Your task to perform on an android device: toggle javascript in the chrome app Image 0: 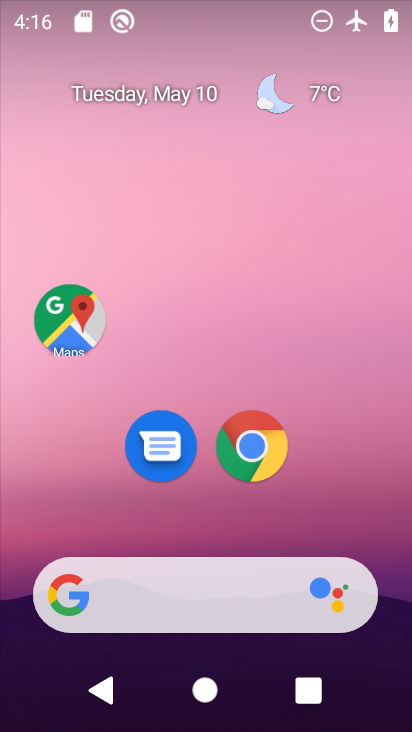
Step 0: drag from (301, 504) to (240, 98)
Your task to perform on an android device: toggle javascript in the chrome app Image 1: 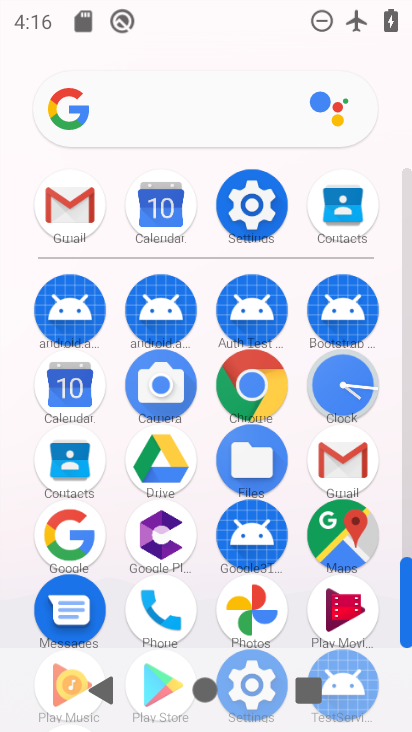
Step 1: click (257, 383)
Your task to perform on an android device: toggle javascript in the chrome app Image 2: 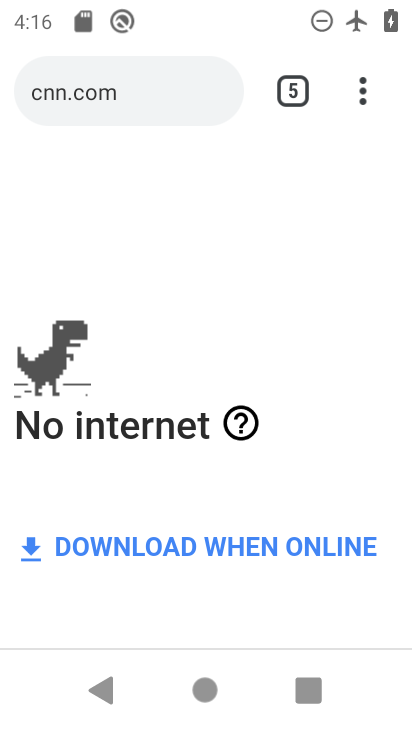
Step 2: click (358, 93)
Your task to perform on an android device: toggle javascript in the chrome app Image 3: 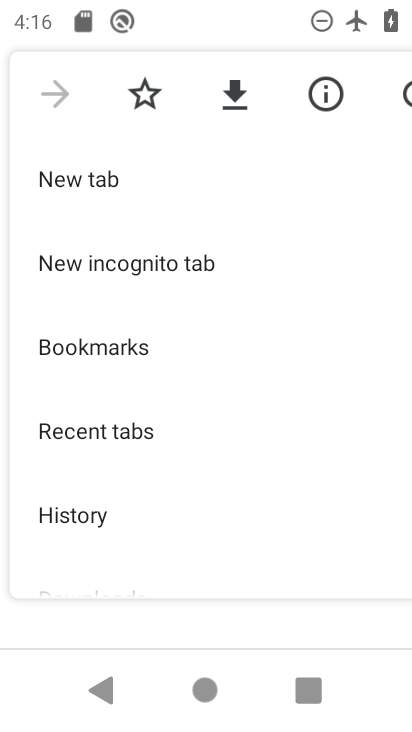
Step 3: drag from (170, 558) to (142, 207)
Your task to perform on an android device: toggle javascript in the chrome app Image 4: 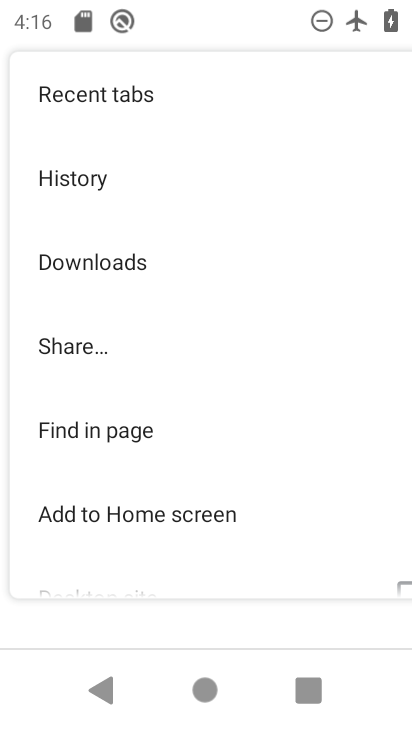
Step 4: drag from (197, 551) to (171, 259)
Your task to perform on an android device: toggle javascript in the chrome app Image 5: 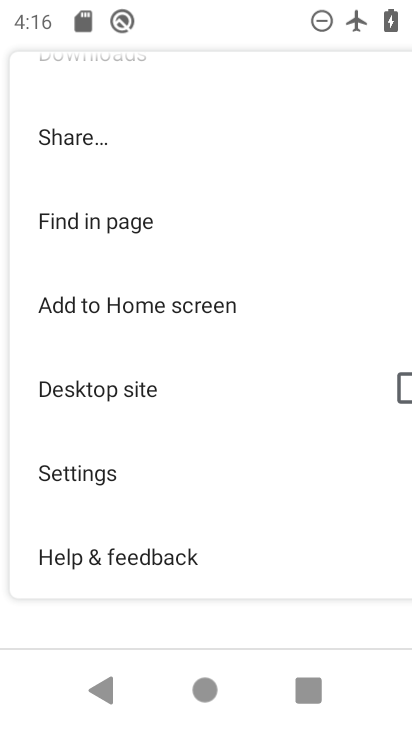
Step 5: click (136, 469)
Your task to perform on an android device: toggle javascript in the chrome app Image 6: 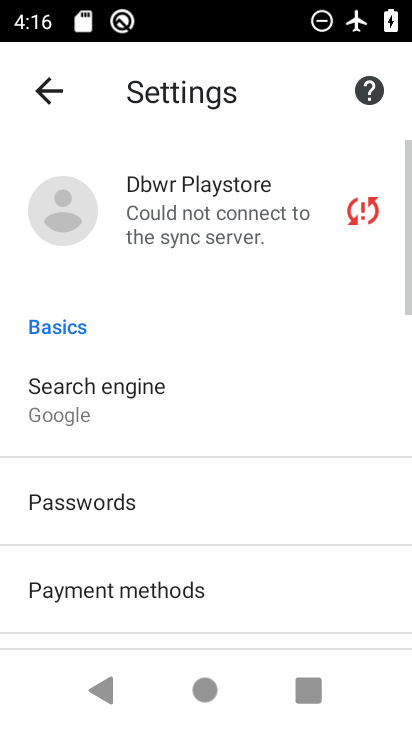
Step 6: drag from (216, 572) to (211, 248)
Your task to perform on an android device: toggle javascript in the chrome app Image 7: 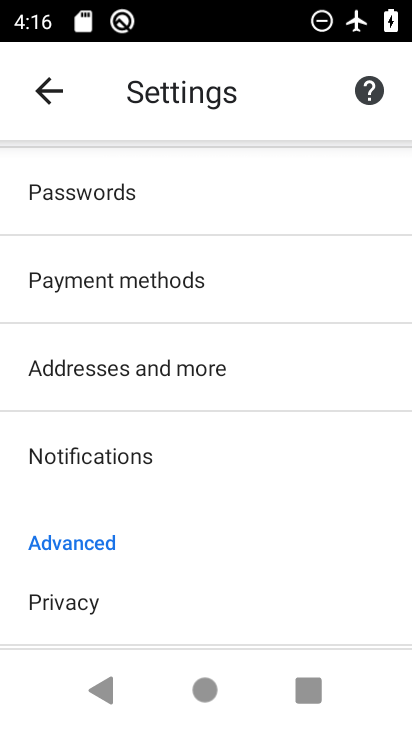
Step 7: drag from (186, 575) to (203, 241)
Your task to perform on an android device: toggle javascript in the chrome app Image 8: 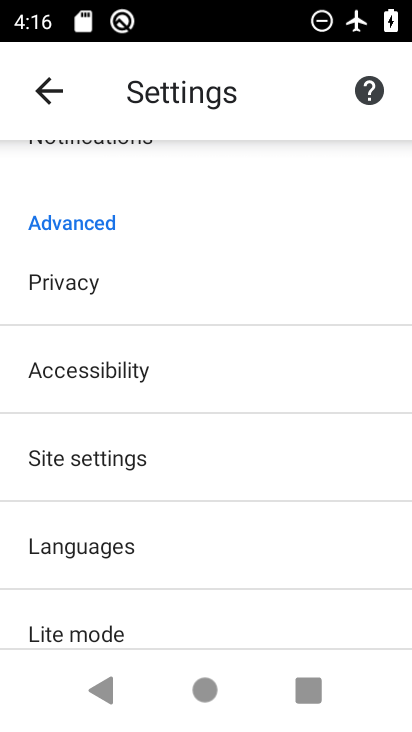
Step 8: click (149, 453)
Your task to perform on an android device: toggle javascript in the chrome app Image 9: 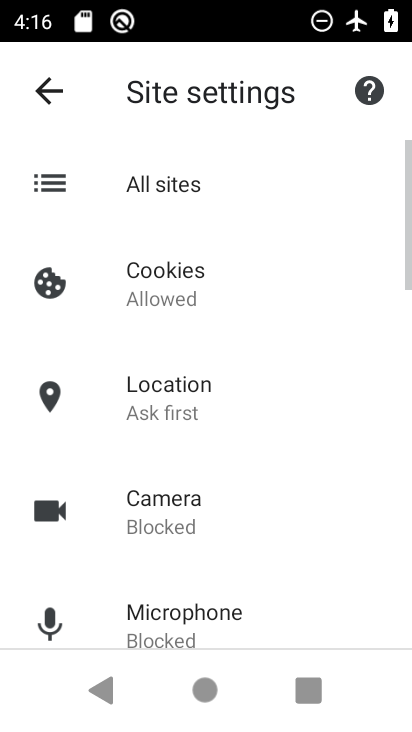
Step 9: drag from (258, 560) to (246, 233)
Your task to perform on an android device: toggle javascript in the chrome app Image 10: 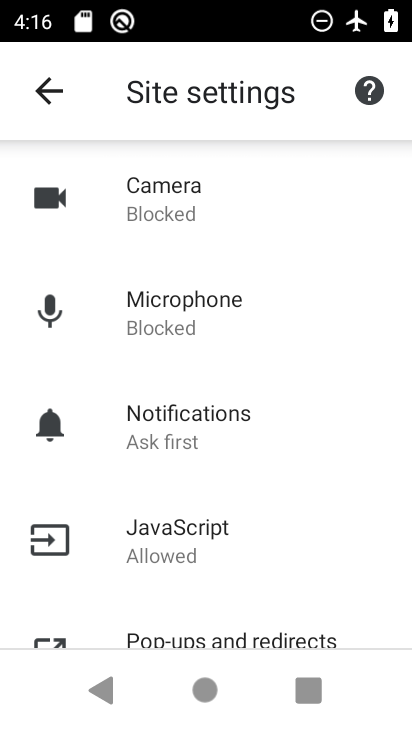
Step 10: click (183, 529)
Your task to perform on an android device: toggle javascript in the chrome app Image 11: 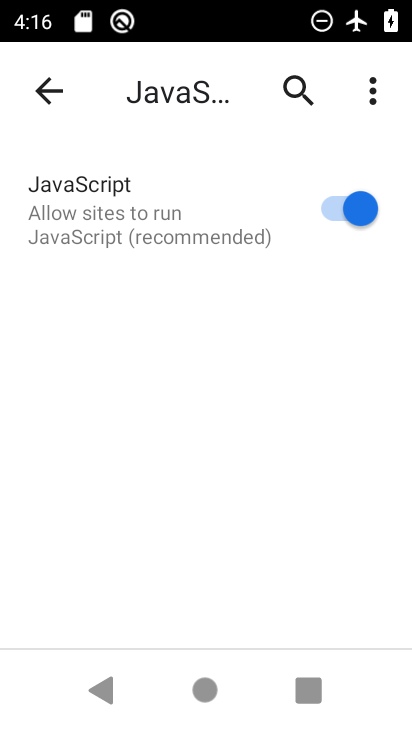
Step 11: click (359, 211)
Your task to perform on an android device: toggle javascript in the chrome app Image 12: 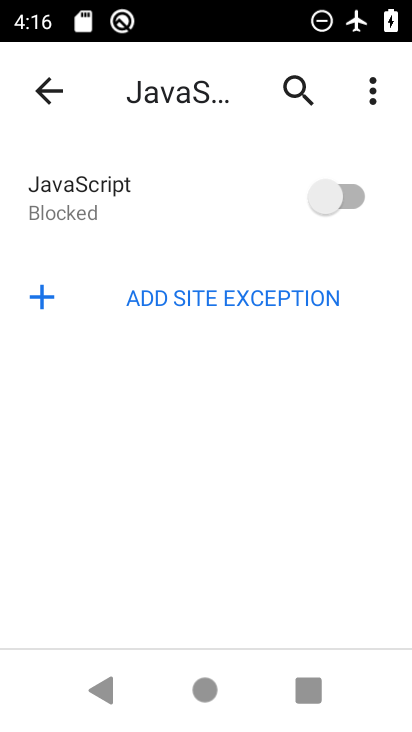
Step 12: task complete